Your task to perform on an android device: turn off location history Image 0: 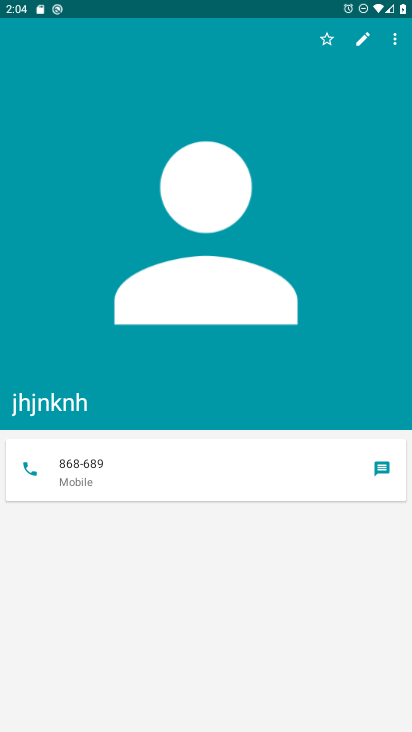
Step 0: drag from (140, 639) to (164, 354)
Your task to perform on an android device: turn off location history Image 1: 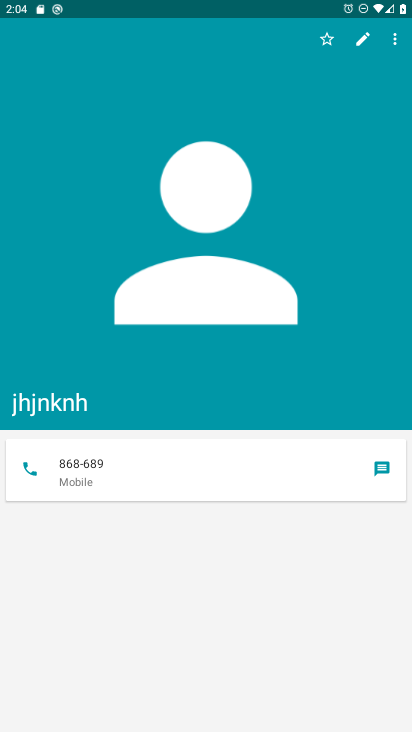
Step 1: press home button
Your task to perform on an android device: turn off location history Image 2: 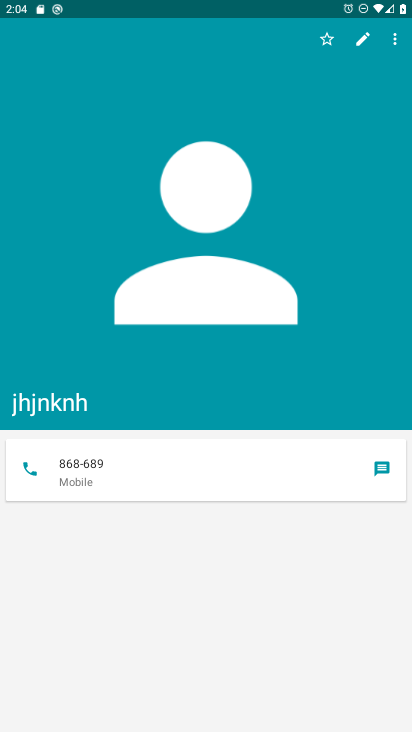
Step 2: press home button
Your task to perform on an android device: turn off location history Image 3: 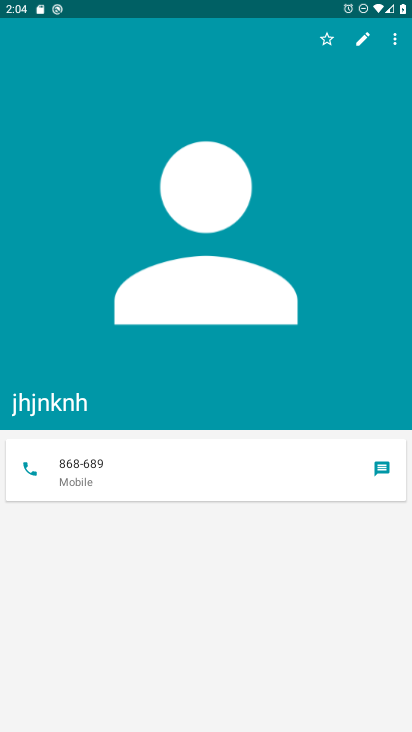
Step 3: click (268, 242)
Your task to perform on an android device: turn off location history Image 4: 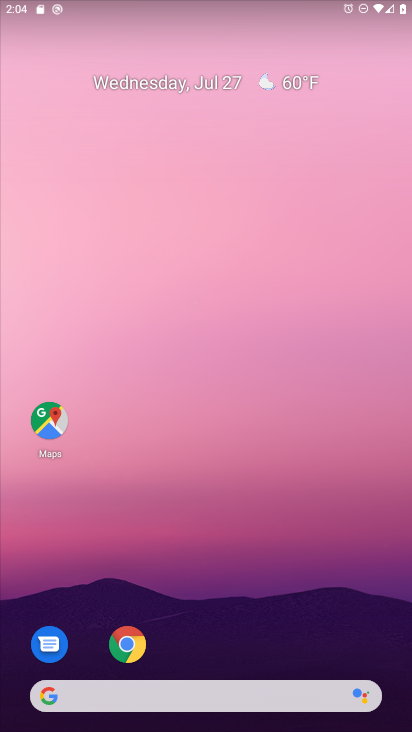
Step 4: drag from (213, 582) to (290, 178)
Your task to perform on an android device: turn off location history Image 5: 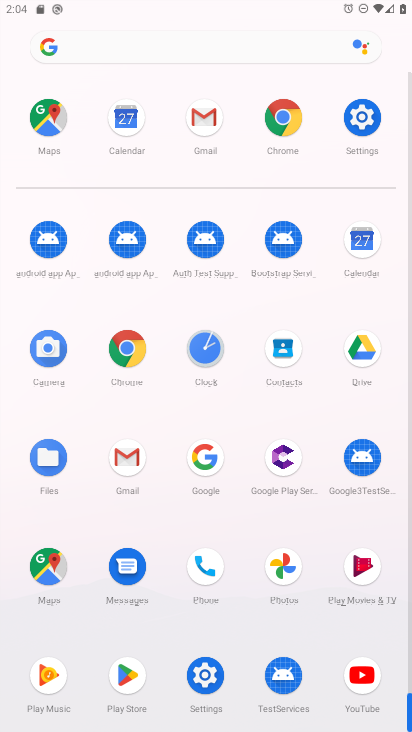
Step 5: click (204, 662)
Your task to perform on an android device: turn off location history Image 6: 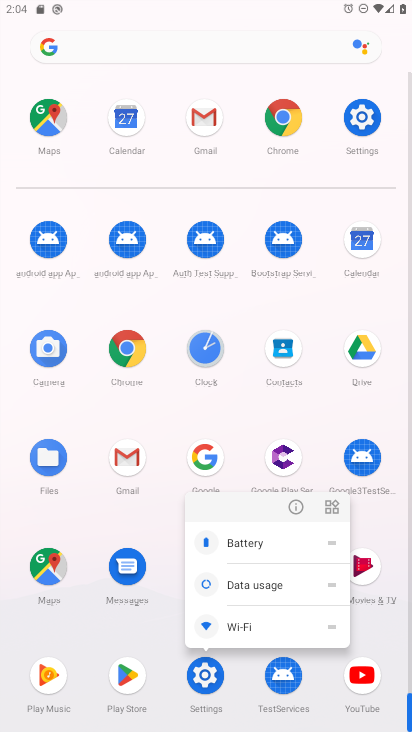
Step 6: click (299, 503)
Your task to perform on an android device: turn off location history Image 7: 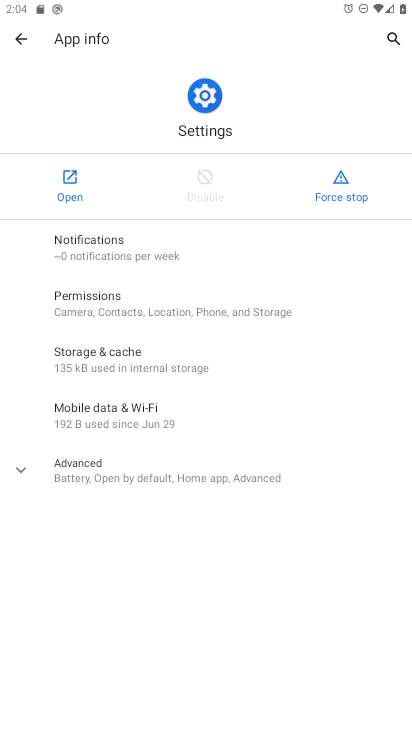
Step 7: click (79, 193)
Your task to perform on an android device: turn off location history Image 8: 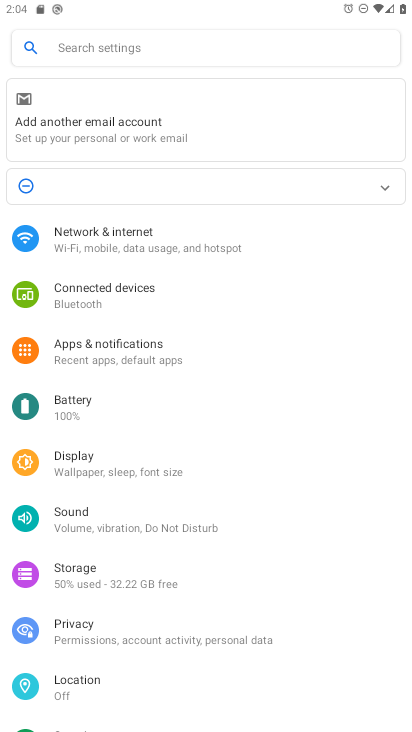
Step 8: click (107, 671)
Your task to perform on an android device: turn off location history Image 9: 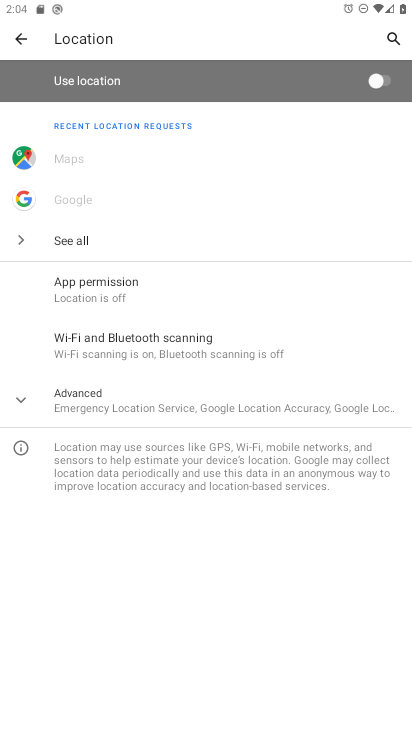
Step 9: click (84, 400)
Your task to perform on an android device: turn off location history Image 10: 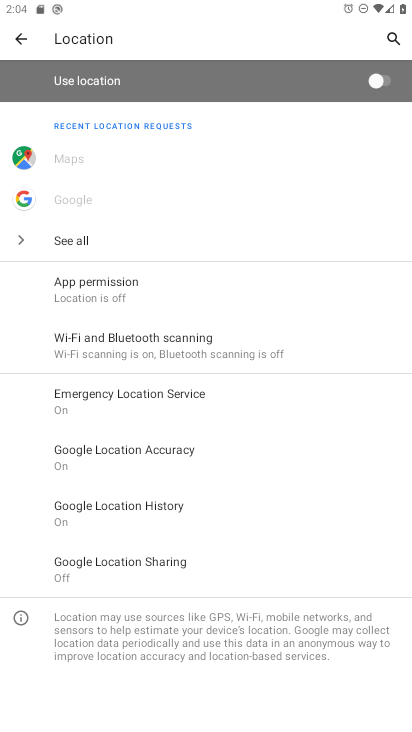
Step 10: click (207, 502)
Your task to perform on an android device: turn off location history Image 11: 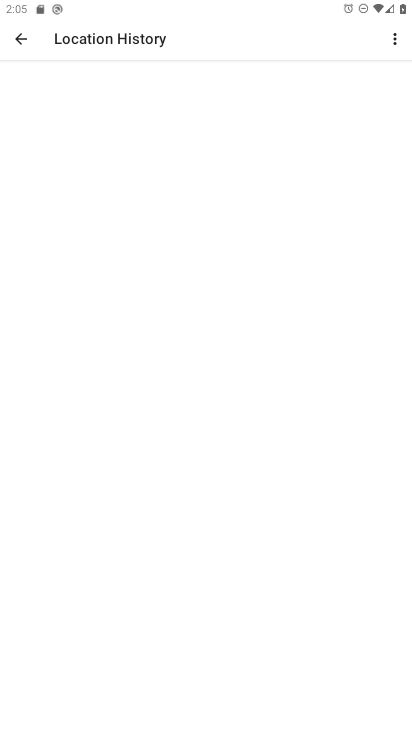
Step 11: task complete